Your task to perform on an android device: Go to CNN.com Image 0: 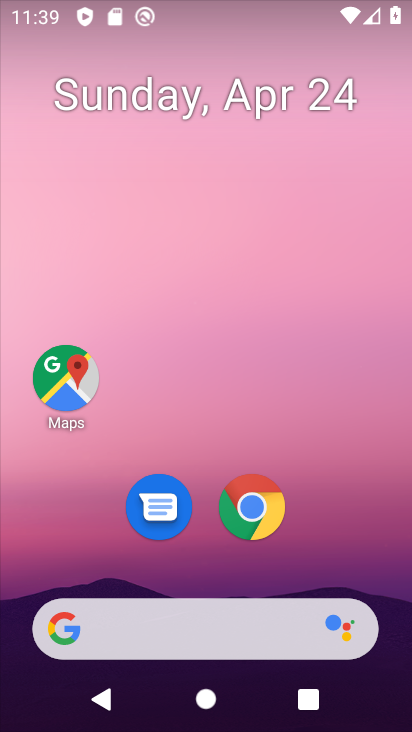
Step 0: drag from (303, 290) to (311, 49)
Your task to perform on an android device: Go to CNN.com Image 1: 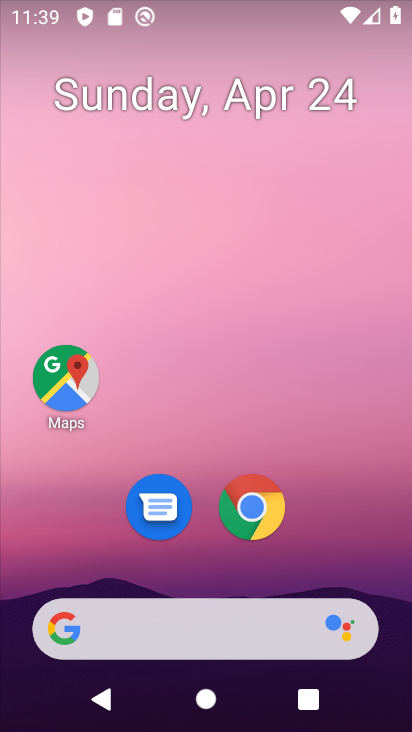
Step 1: click (251, 514)
Your task to perform on an android device: Go to CNN.com Image 2: 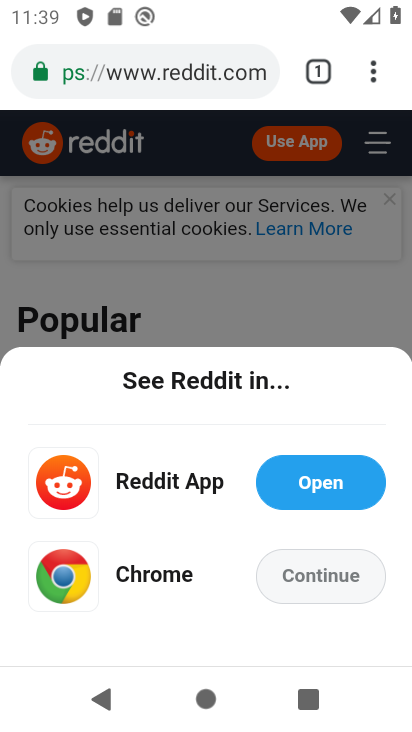
Step 2: drag from (374, 73) to (164, 145)
Your task to perform on an android device: Go to CNN.com Image 3: 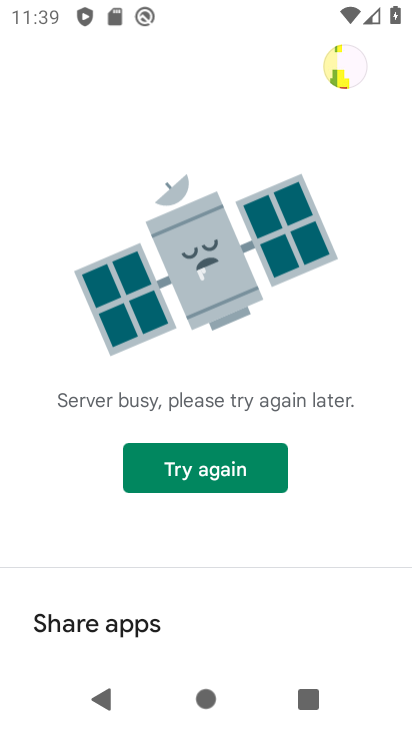
Step 3: press back button
Your task to perform on an android device: Go to CNN.com Image 4: 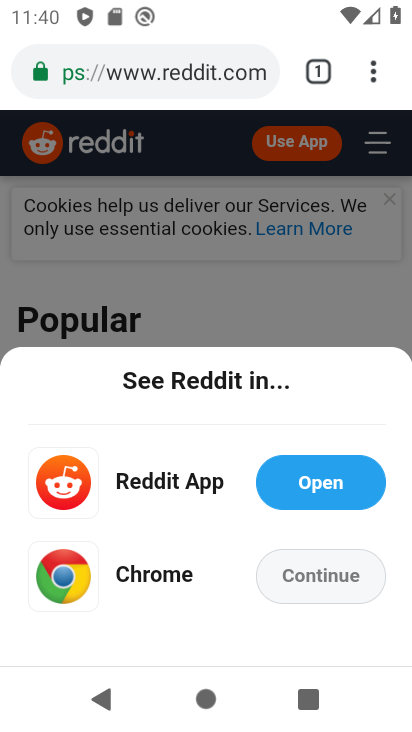
Step 4: drag from (372, 68) to (169, 242)
Your task to perform on an android device: Go to CNN.com Image 5: 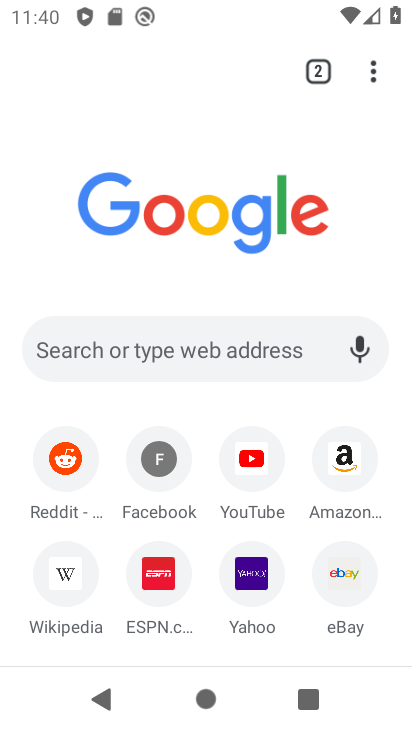
Step 5: click (201, 344)
Your task to perform on an android device: Go to CNN.com Image 6: 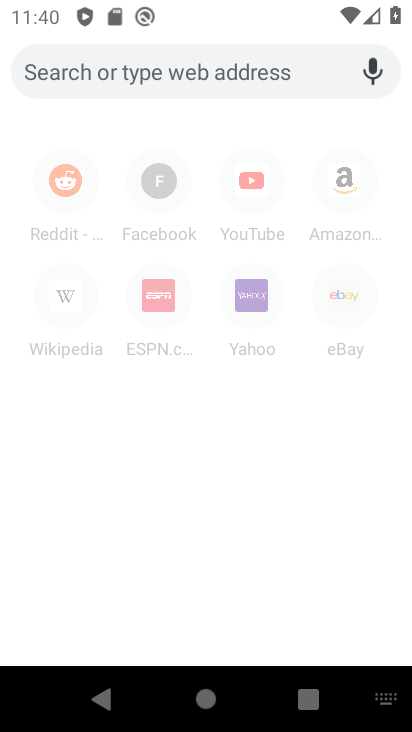
Step 6: type " CNN.com"
Your task to perform on an android device: Go to CNN.com Image 7: 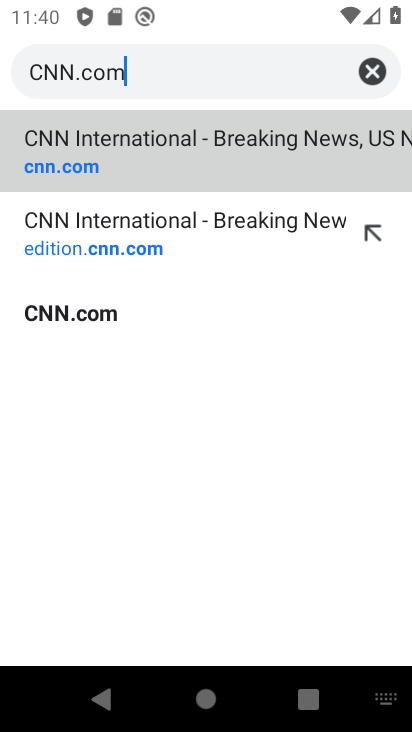
Step 7: click (48, 162)
Your task to perform on an android device: Go to CNN.com Image 8: 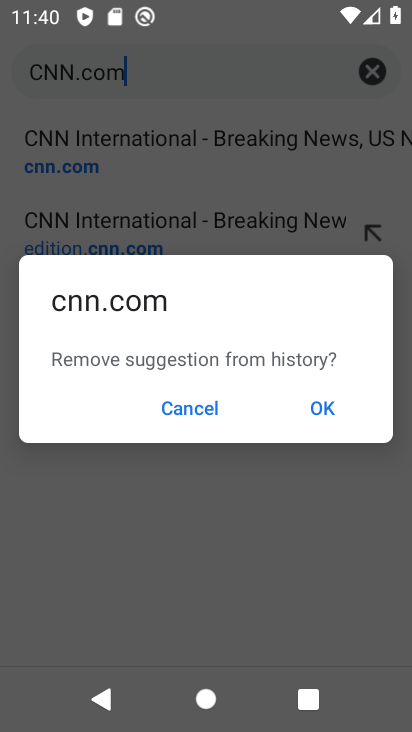
Step 8: click (326, 401)
Your task to perform on an android device: Go to CNN.com Image 9: 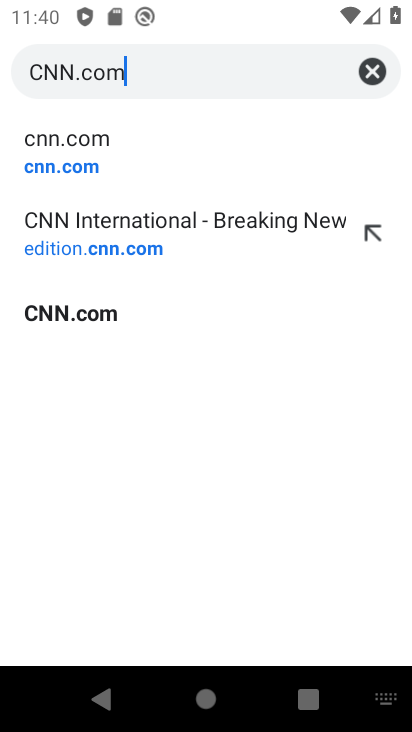
Step 9: click (66, 163)
Your task to perform on an android device: Go to CNN.com Image 10: 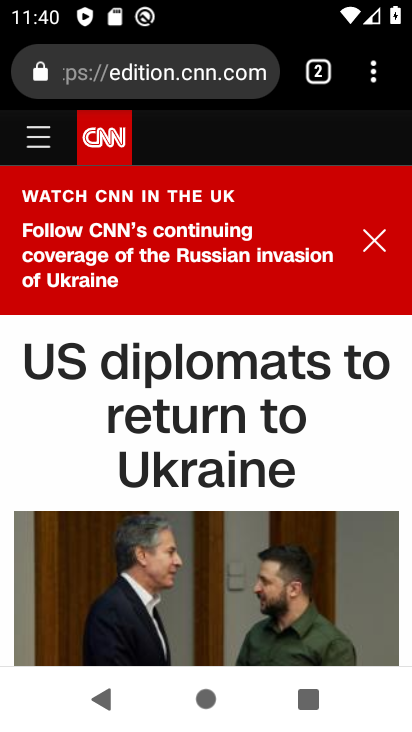
Step 10: task complete